Your task to perform on an android device: Open Wikipedia Image 0: 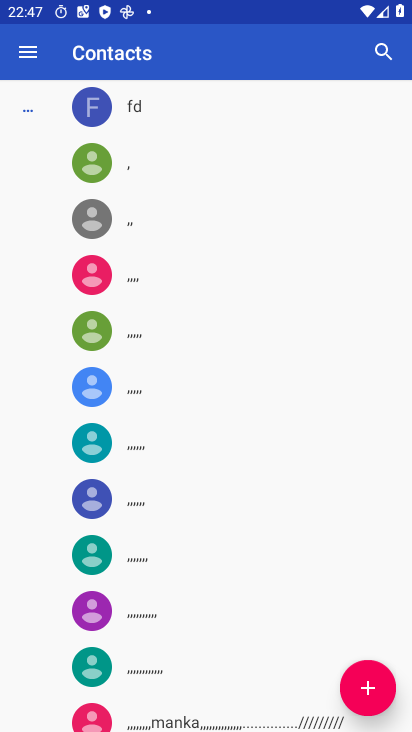
Step 0: press home button
Your task to perform on an android device: Open Wikipedia Image 1: 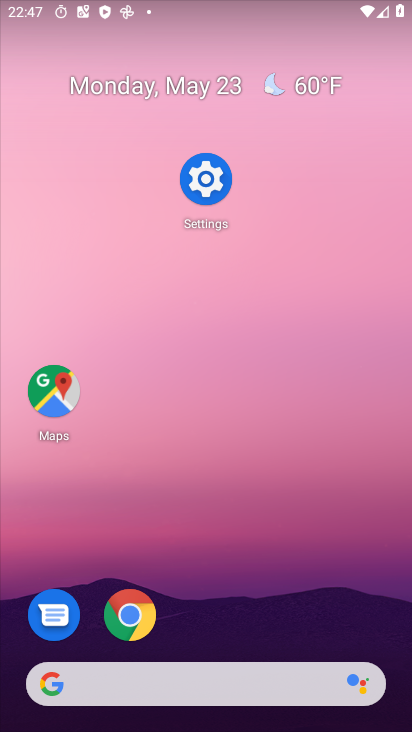
Step 1: click (116, 619)
Your task to perform on an android device: Open Wikipedia Image 2: 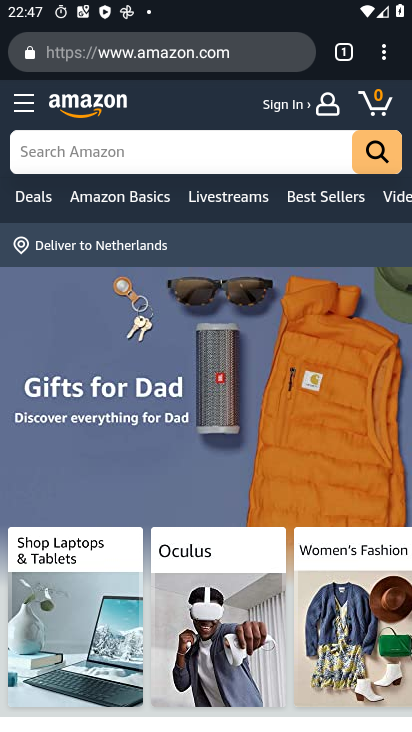
Step 2: press back button
Your task to perform on an android device: Open Wikipedia Image 3: 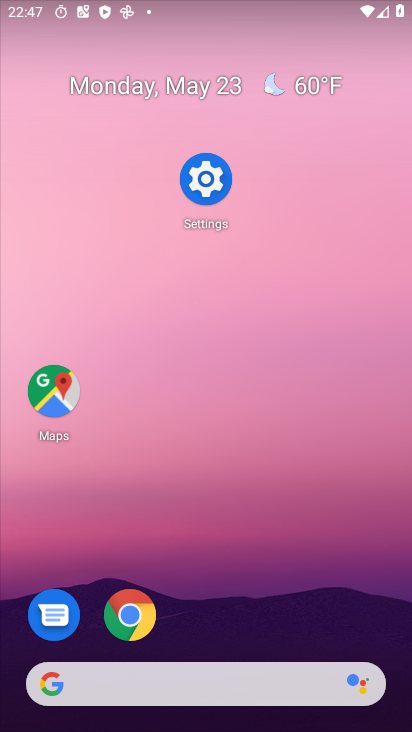
Step 3: click (138, 612)
Your task to perform on an android device: Open Wikipedia Image 4: 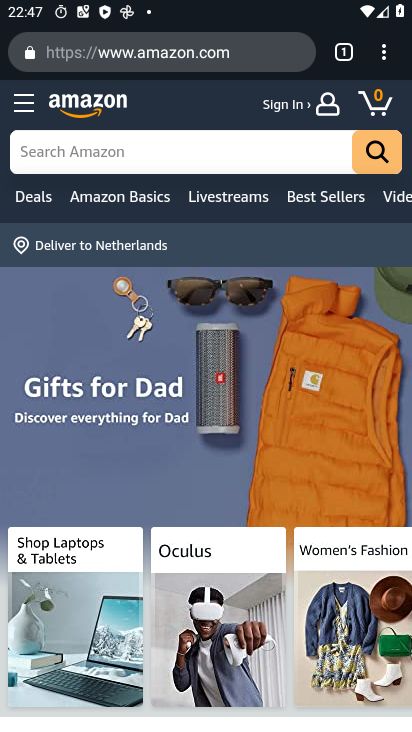
Step 4: click (232, 55)
Your task to perform on an android device: Open Wikipedia Image 5: 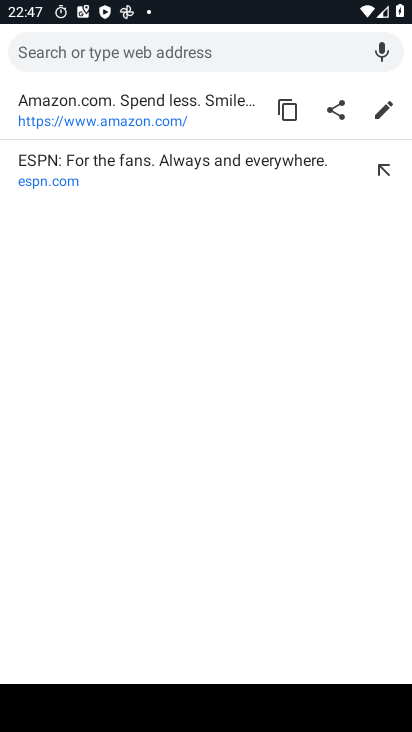
Step 5: type "wikkipedia"
Your task to perform on an android device: Open Wikipedia Image 6: 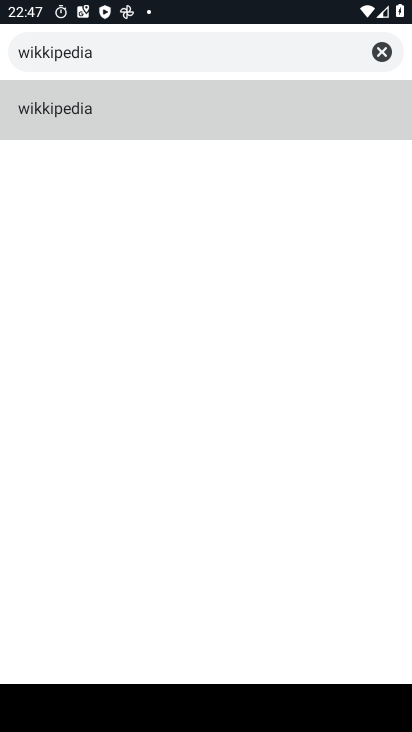
Step 6: click (205, 110)
Your task to perform on an android device: Open Wikipedia Image 7: 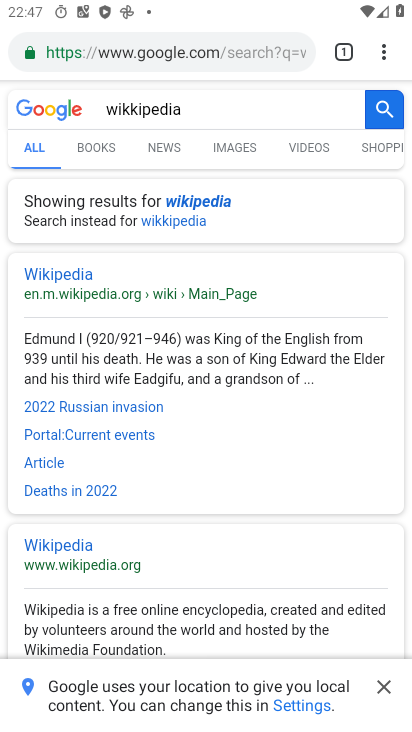
Step 7: click (57, 276)
Your task to perform on an android device: Open Wikipedia Image 8: 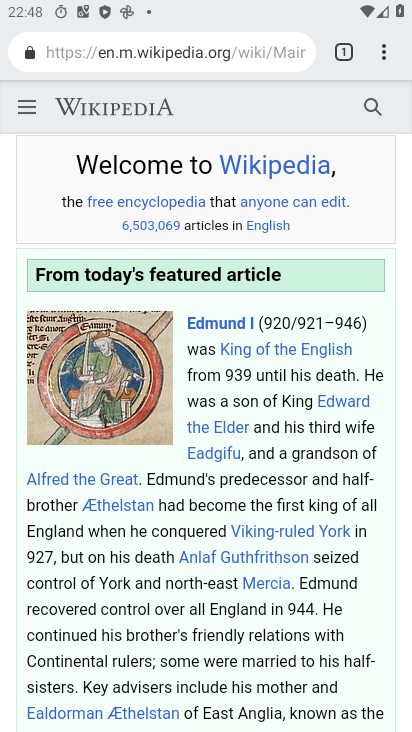
Step 8: task complete